Your task to perform on an android device: Open Google Maps and go to "Timeline" Image 0: 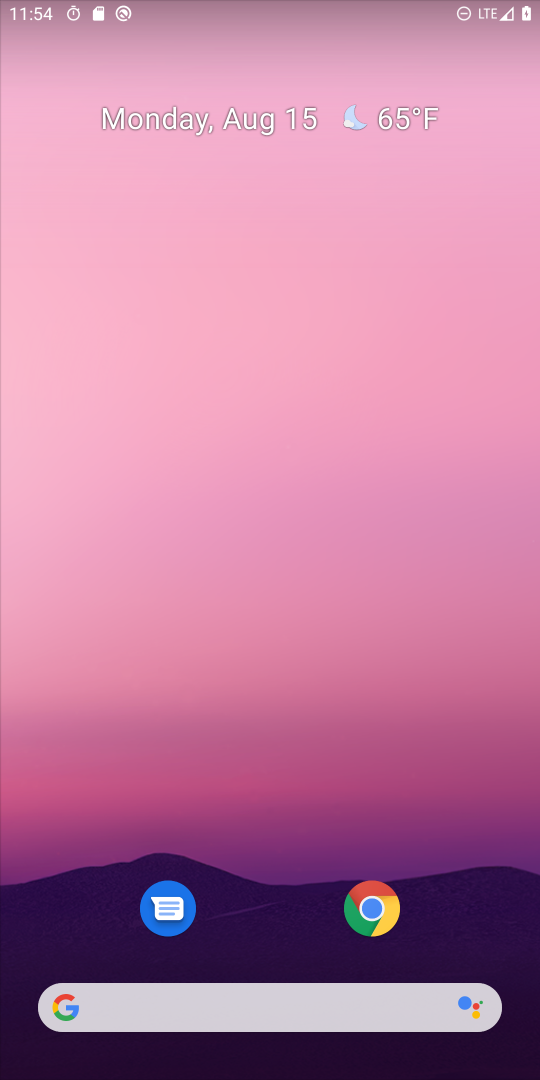
Step 0: drag from (262, 939) to (257, 114)
Your task to perform on an android device: Open Google Maps and go to "Timeline" Image 1: 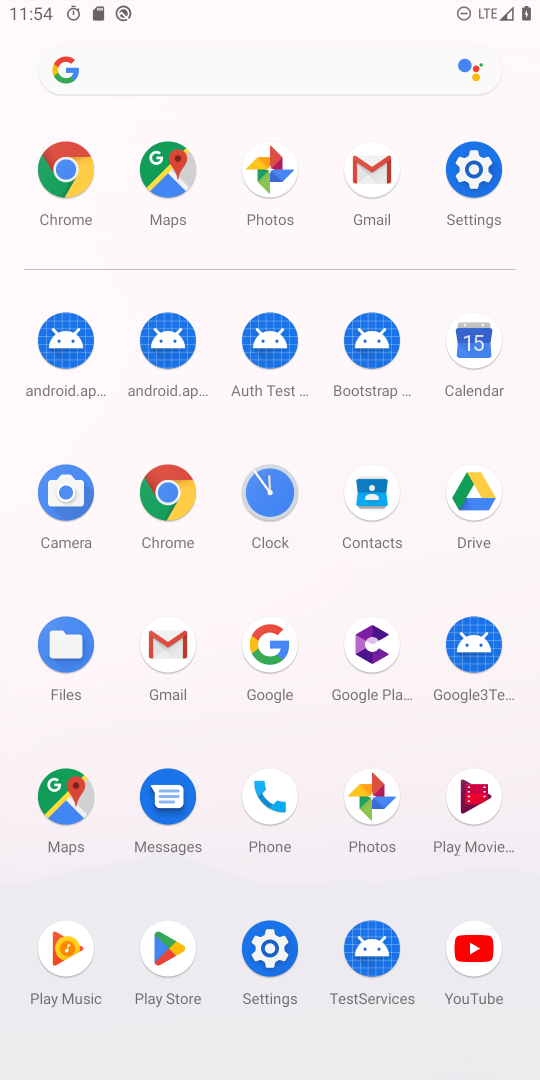
Step 1: click (172, 191)
Your task to perform on an android device: Open Google Maps and go to "Timeline" Image 2: 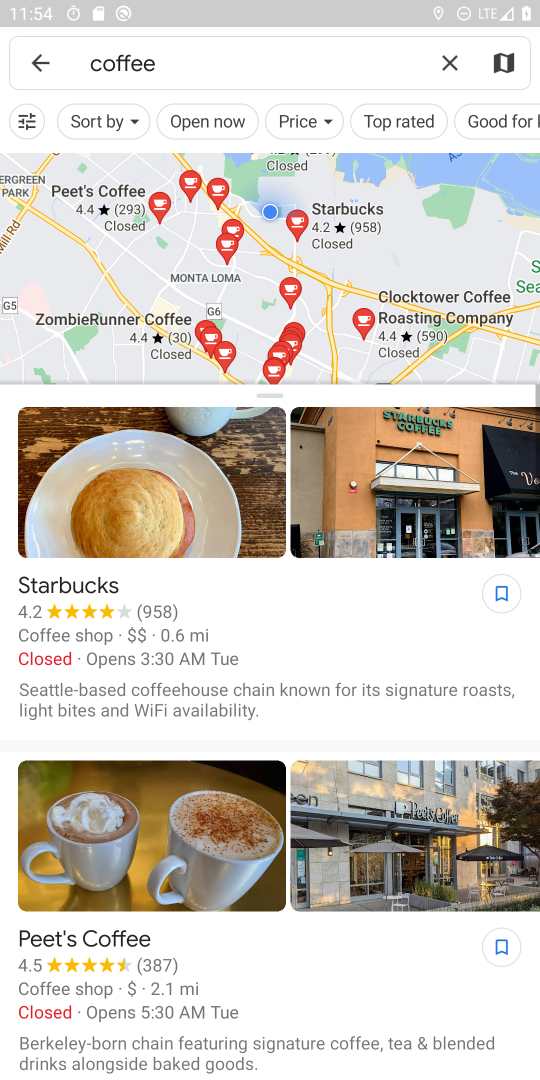
Step 2: click (46, 63)
Your task to perform on an android device: Open Google Maps and go to "Timeline" Image 3: 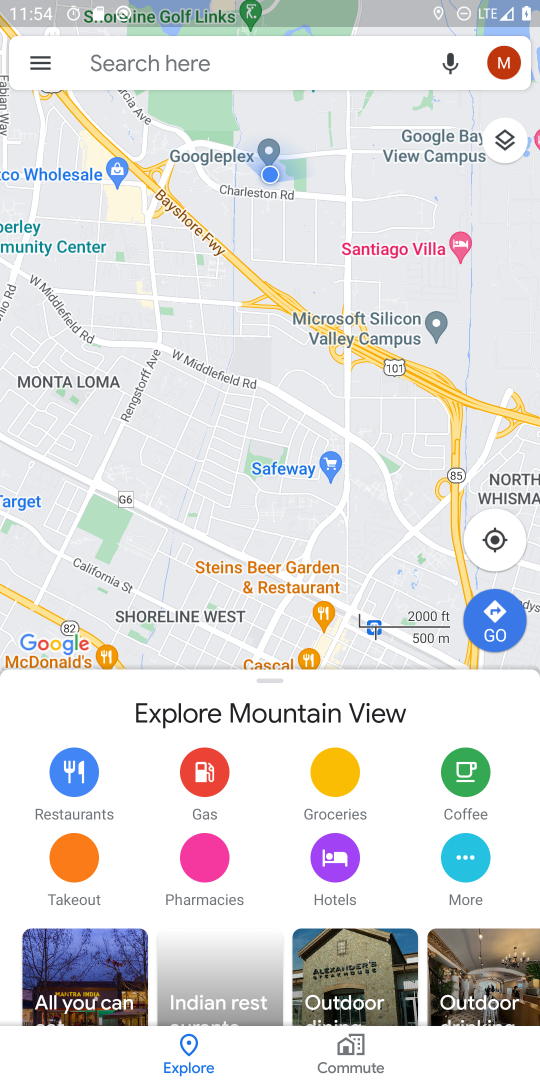
Step 3: click (46, 63)
Your task to perform on an android device: Open Google Maps and go to "Timeline" Image 4: 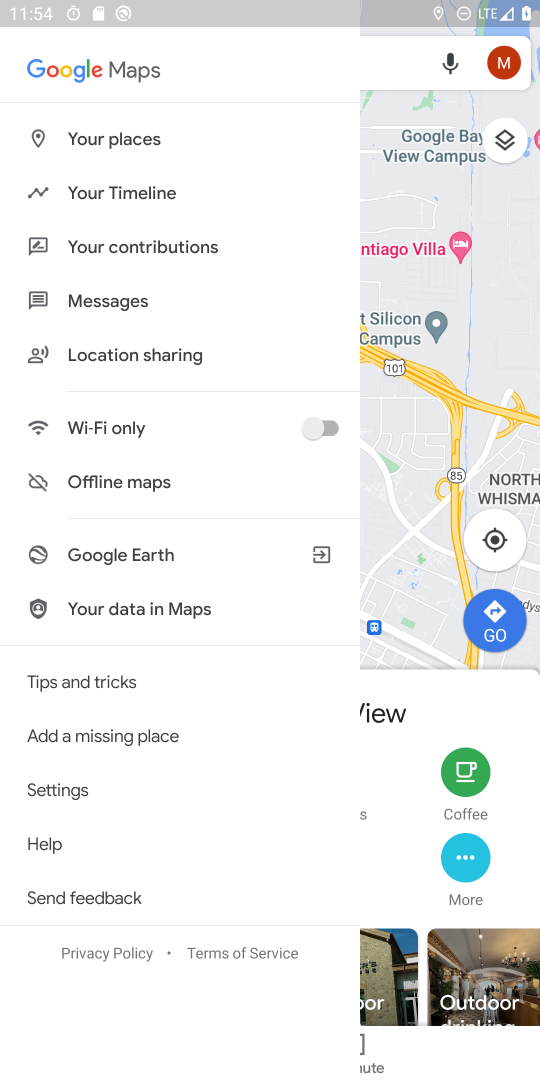
Step 4: click (46, 63)
Your task to perform on an android device: Open Google Maps and go to "Timeline" Image 5: 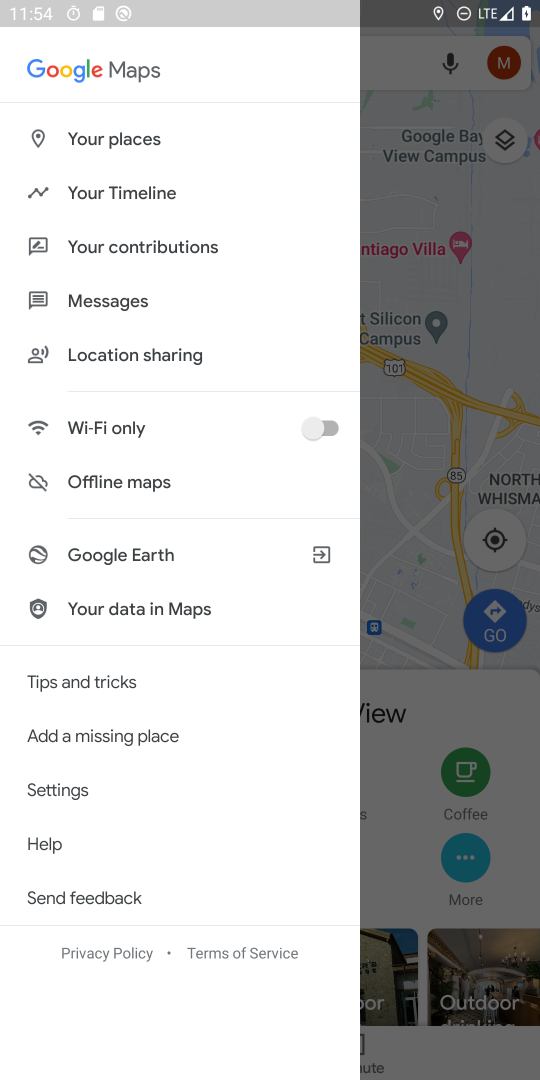
Step 5: click (137, 196)
Your task to perform on an android device: Open Google Maps and go to "Timeline" Image 6: 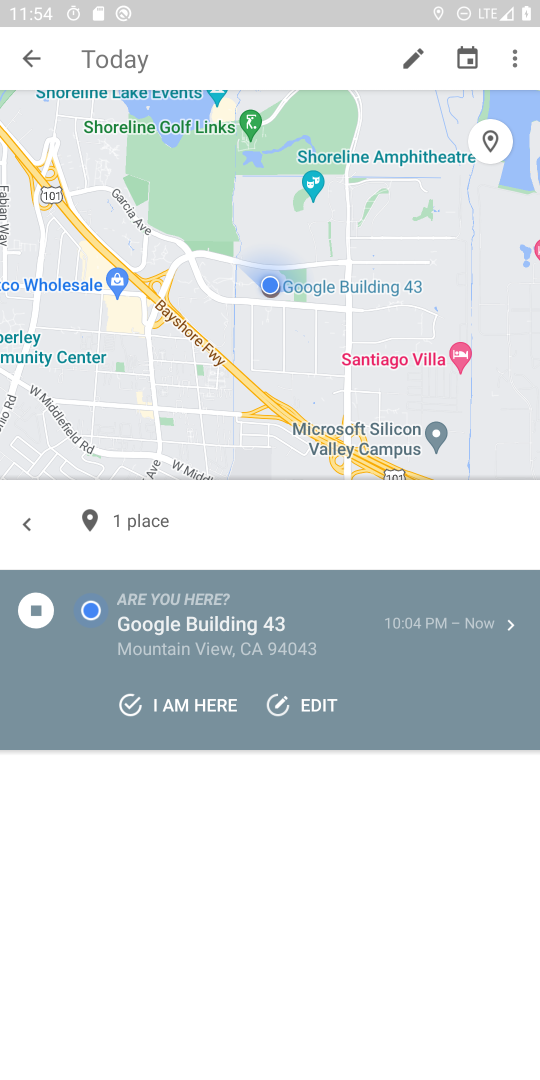
Step 6: task complete